Your task to perform on an android device: check storage Image 0: 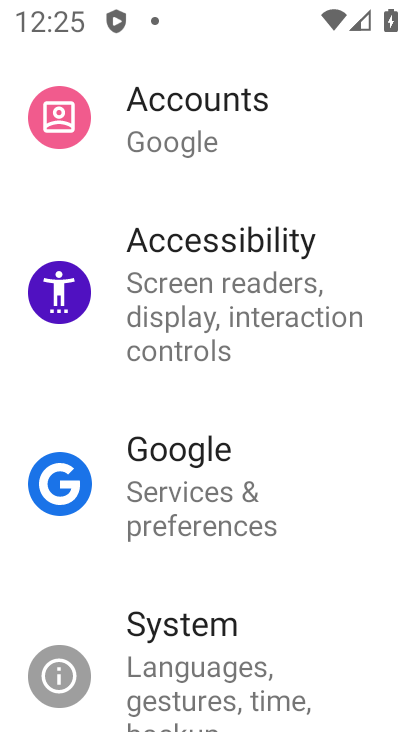
Step 0: drag from (155, 314) to (194, 729)
Your task to perform on an android device: check storage Image 1: 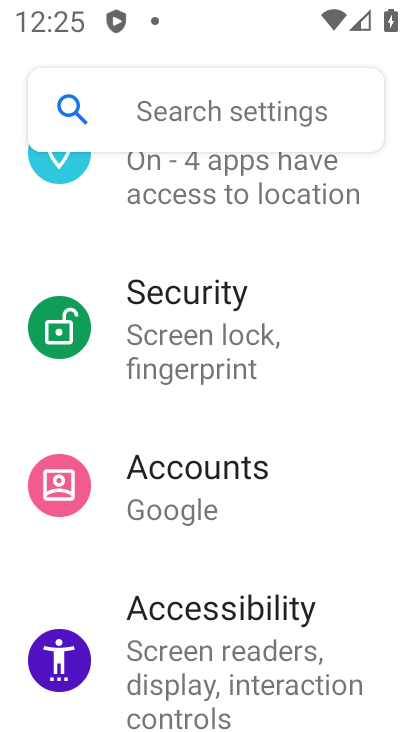
Step 1: drag from (263, 276) to (253, 723)
Your task to perform on an android device: check storage Image 2: 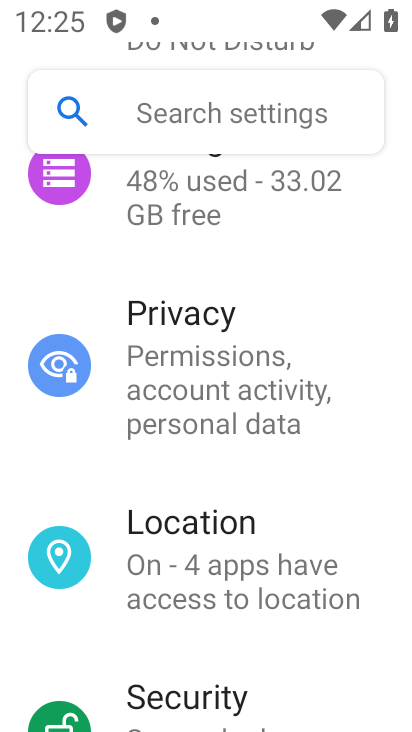
Step 2: drag from (302, 252) to (286, 442)
Your task to perform on an android device: check storage Image 3: 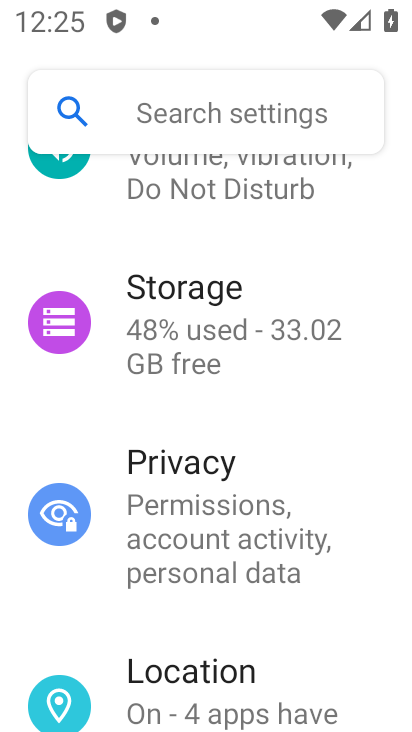
Step 3: click (177, 347)
Your task to perform on an android device: check storage Image 4: 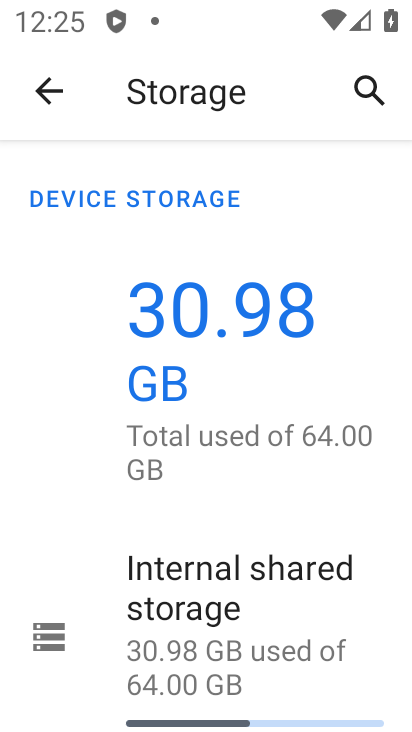
Step 4: task complete